Your task to perform on an android device: Open battery settings Image 0: 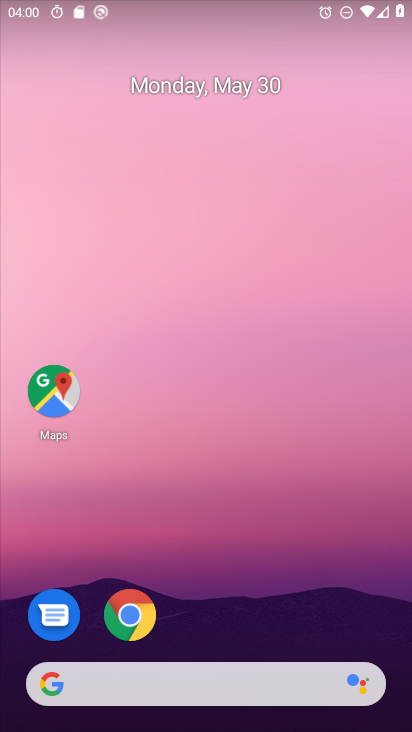
Step 0: drag from (276, 575) to (194, 122)
Your task to perform on an android device: Open battery settings Image 1: 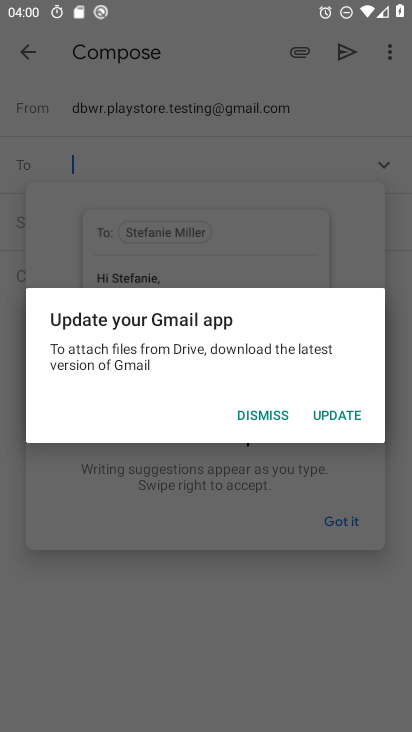
Step 1: press home button
Your task to perform on an android device: Open battery settings Image 2: 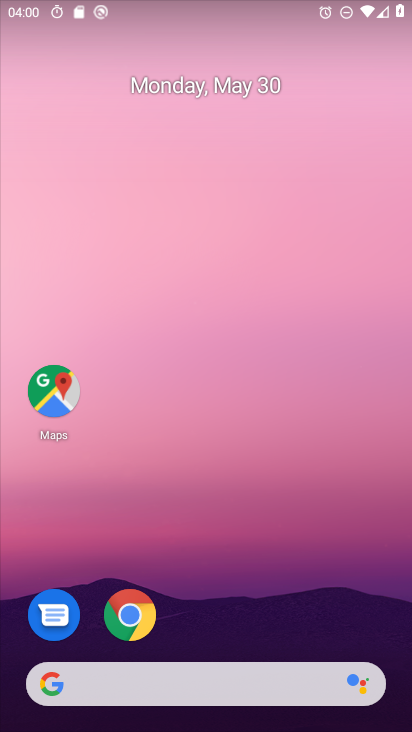
Step 2: drag from (223, 601) to (199, 88)
Your task to perform on an android device: Open battery settings Image 3: 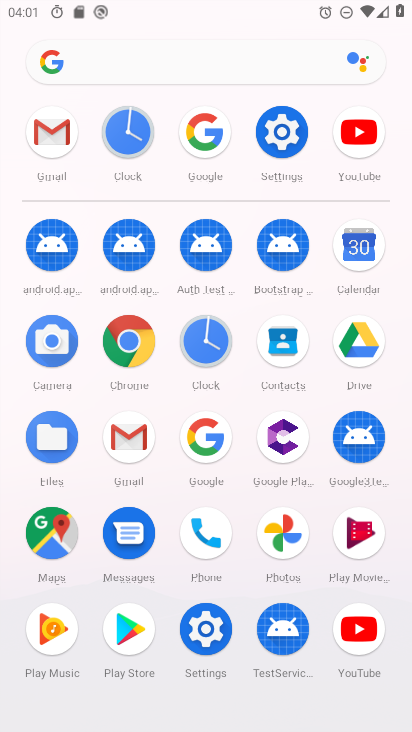
Step 3: click (282, 131)
Your task to perform on an android device: Open battery settings Image 4: 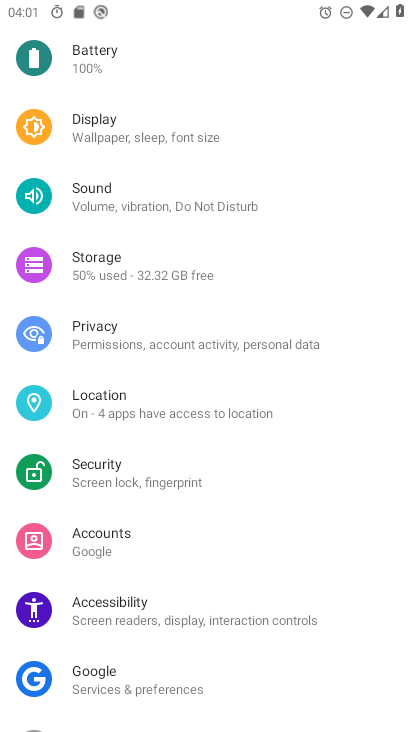
Step 4: click (93, 59)
Your task to perform on an android device: Open battery settings Image 5: 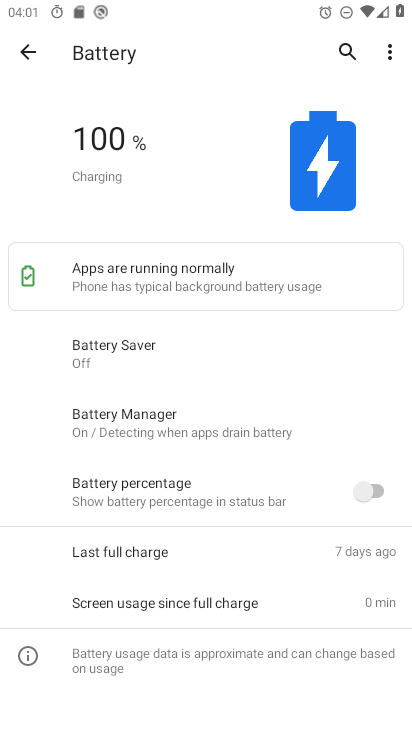
Step 5: click (392, 52)
Your task to perform on an android device: Open battery settings Image 6: 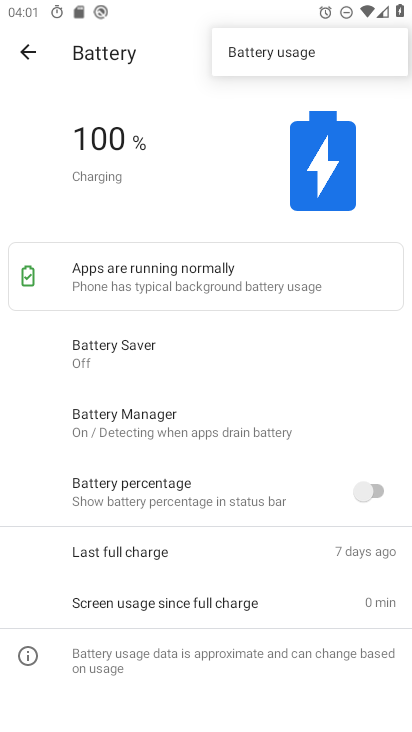
Step 6: click (330, 52)
Your task to perform on an android device: Open battery settings Image 7: 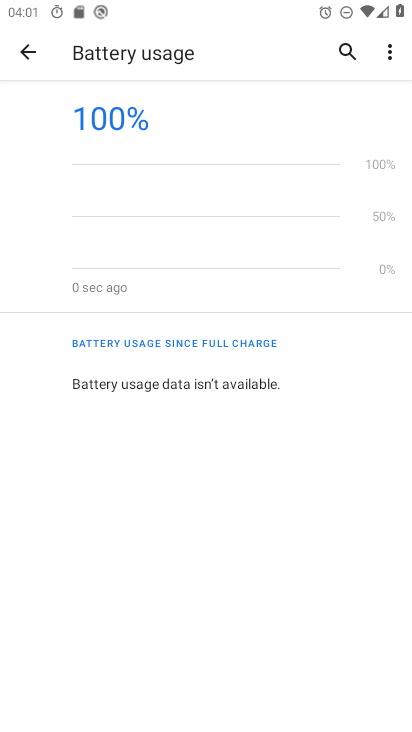
Step 7: task complete